Your task to perform on an android device: Open Google Maps and go to "Timeline" Image 0: 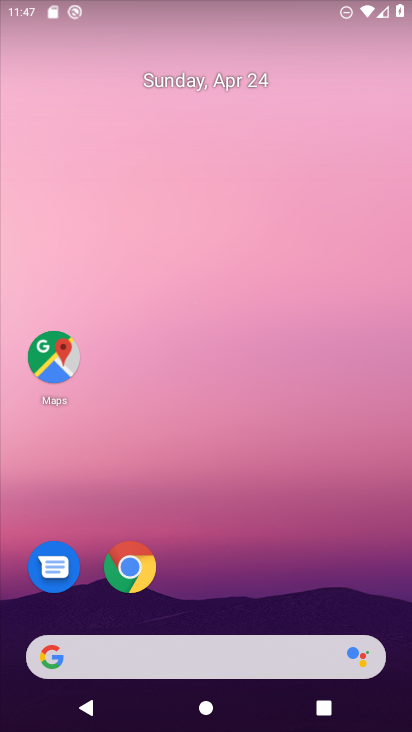
Step 0: drag from (334, 640) to (384, 63)
Your task to perform on an android device: Open Google Maps and go to "Timeline" Image 1: 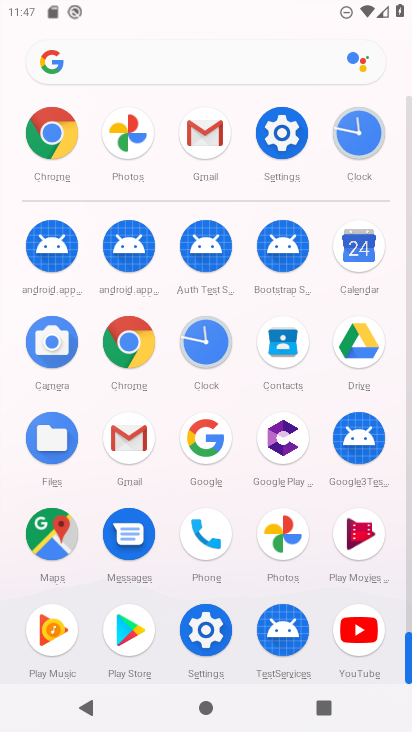
Step 1: click (64, 540)
Your task to perform on an android device: Open Google Maps and go to "Timeline" Image 2: 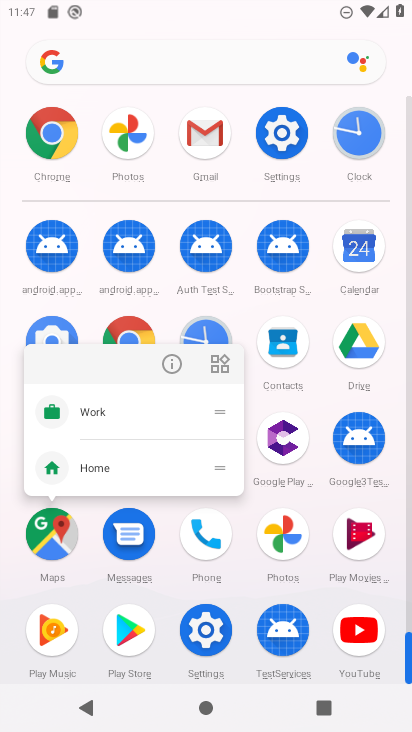
Step 2: click (66, 533)
Your task to perform on an android device: Open Google Maps and go to "Timeline" Image 3: 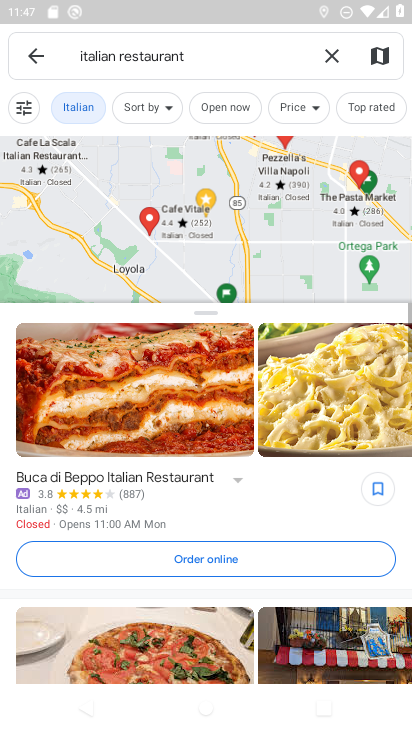
Step 3: click (35, 50)
Your task to perform on an android device: Open Google Maps and go to "Timeline" Image 4: 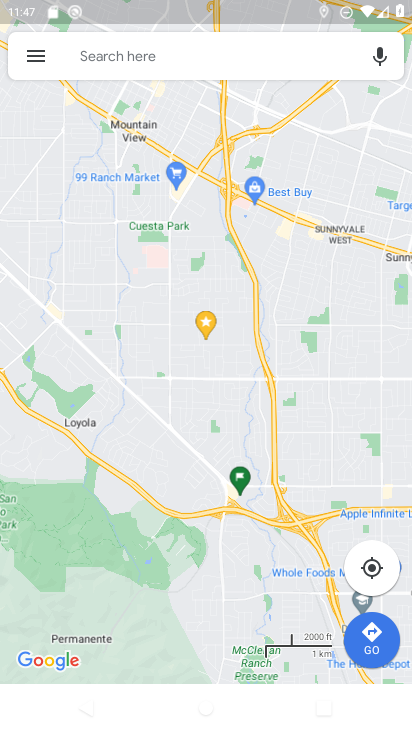
Step 4: press back button
Your task to perform on an android device: Open Google Maps and go to "Timeline" Image 5: 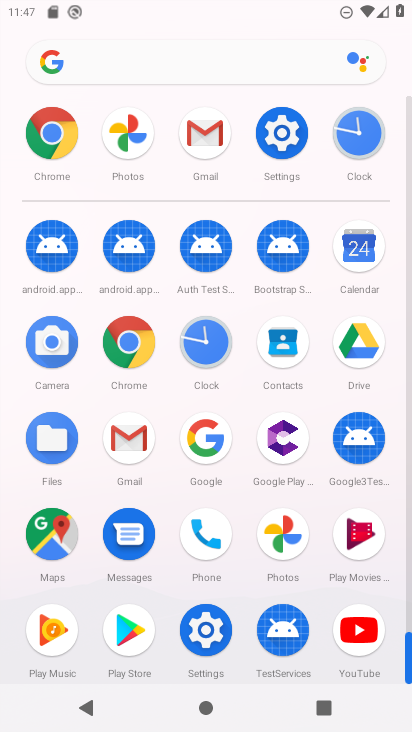
Step 5: click (51, 535)
Your task to perform on an android device: Open Google Maps and go to "Timeline" Image 6: 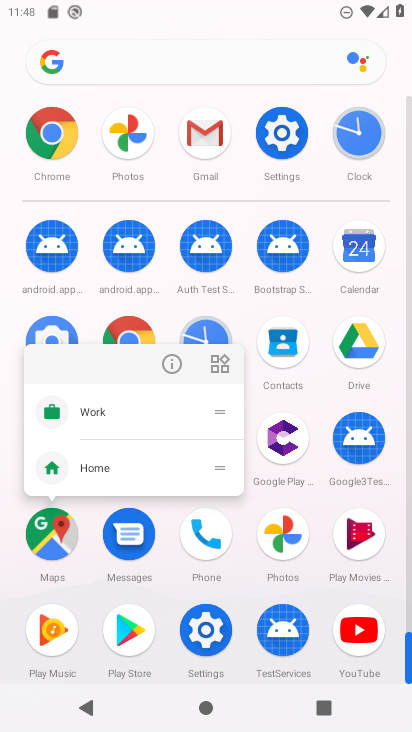
Step 6: click (78, 541)
Your task to perform on an android device: Open Google Maps and go to "Timeline" Image 7: 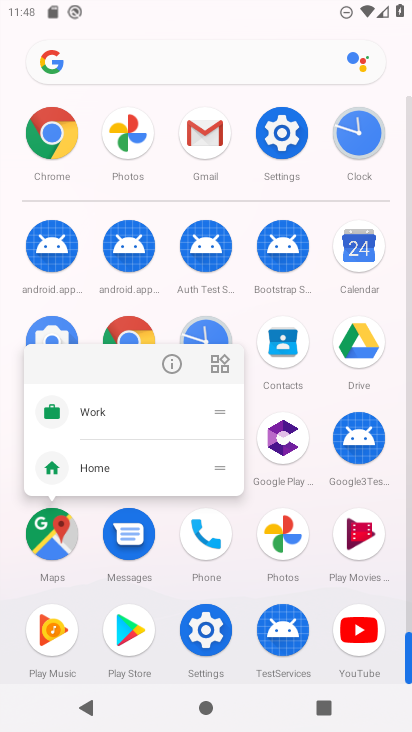
Step 7: click (75, 540)
Your task to perform on an android device: Open Google Maps and go to "Timeline" Image 8: 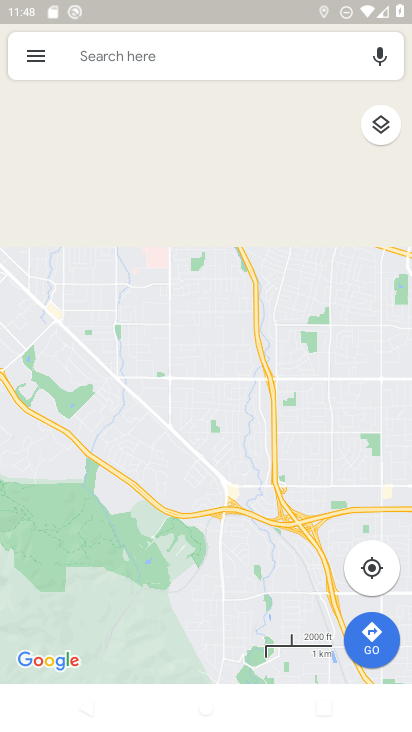
Step 8: click (31, 47)
Your task to perform on an android device: Open Google Maps and go to "Timeline" Image 9: 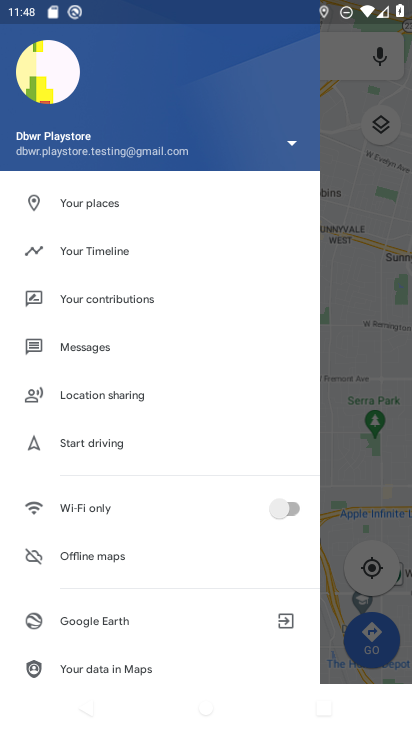
Step 9: click (121, 257)
Your task to perform on an android device: Open Google Maps and go to "Timeline" Image 10: 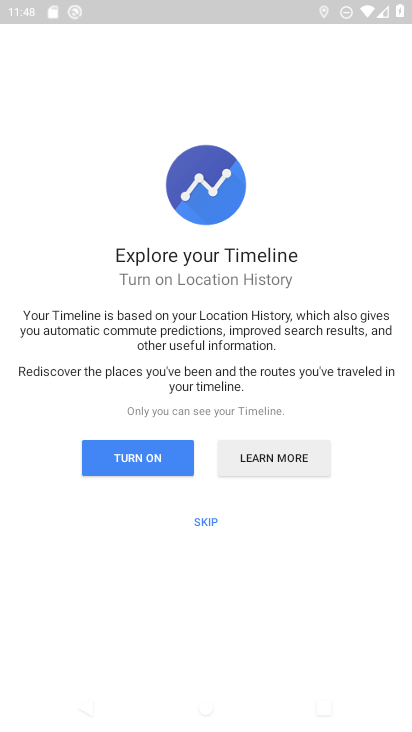
Step 10: click (210, 511)
Your task to perform on an android device: Open Google Maps and go to "Timeline" Image 11: 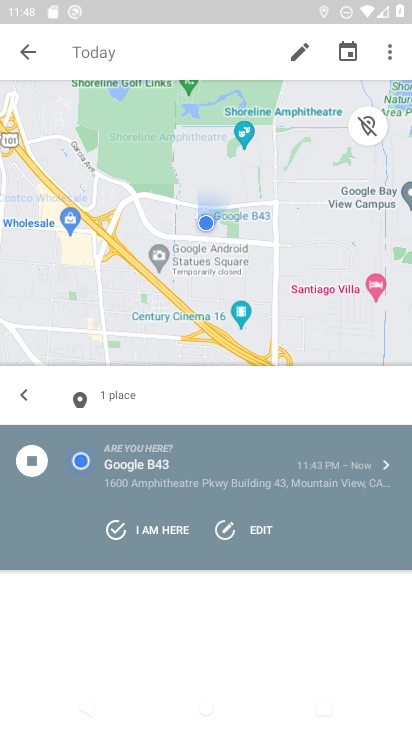
Step 11: task complete